Your task to perform on an android device: read, delete, or share a saved page in the chrome app Image 0: 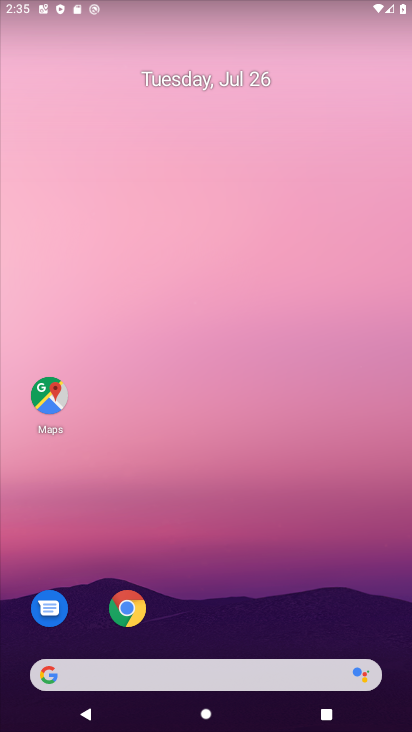
Step 0: drag from (243, 643) to (340, 84)
Your task to perform on an android device: read, delete, or share a saved page in the chrome app Image 1: 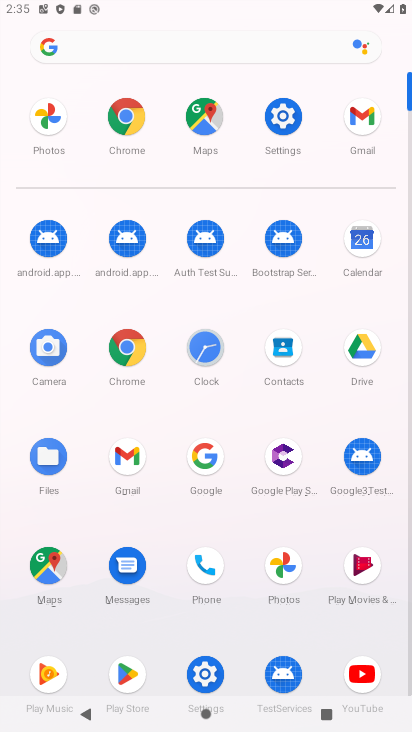
Step 1: click (140, 130)
Your task to perform on an android device: read, delete, or share a saved page in the chrome app Image 2: 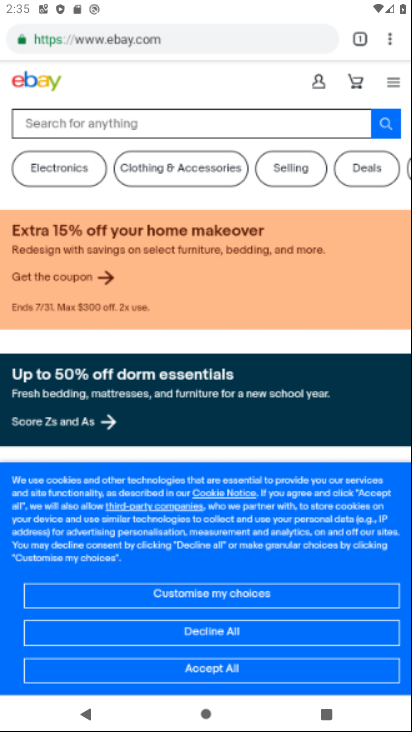
Step 2: task complete